Your task to perform on an android device: turn on bluetooth scan Image 0: 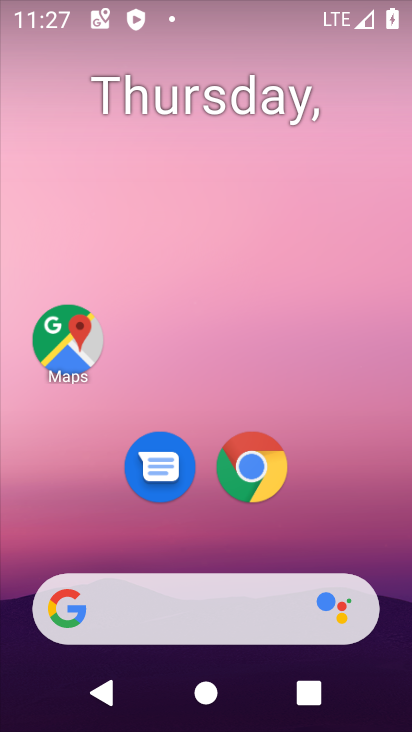
Step 0: drag from (181, 567) to (305, 29)
Your task to perform on an android device: turn on bluetooth scan Image 1: 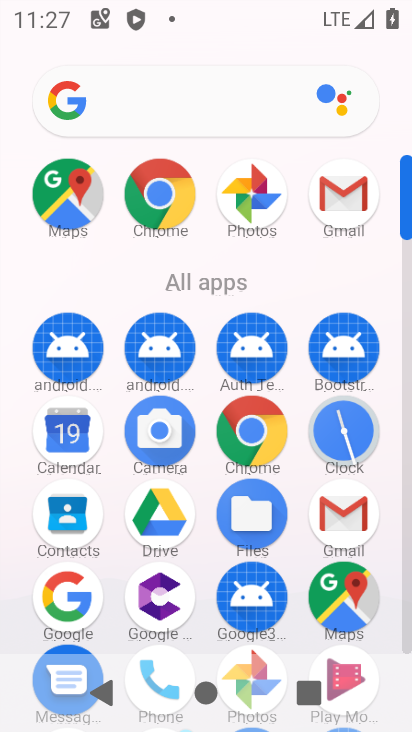
Step 1: drag from (214, 619) to (334, 58)
Your task to perform on an android device: turn on bluetooth scan Image 2: 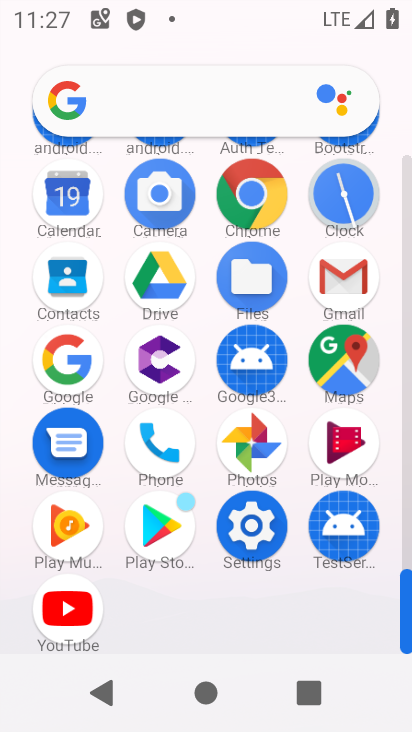
Step 2: click (243, 547)
Your task to perform on an android device: turn on bluetooth scan Image 3: 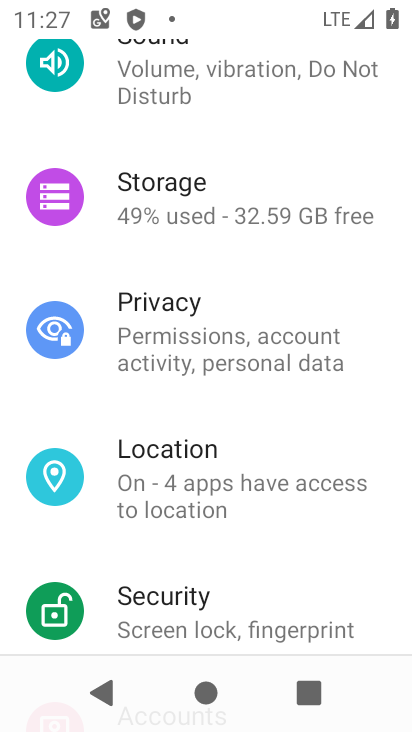
Step 3: drag from (209, 141) to (195, 574)
Your task to perform on an android device: turn on bluetooth scan Image 4: 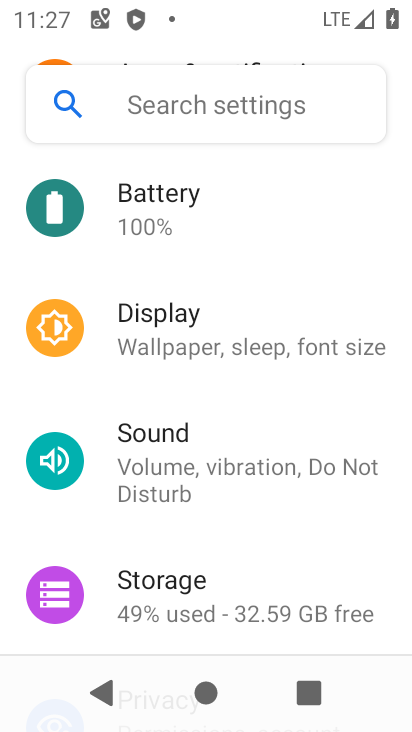
Step 4: drag from (213, 260) to (159, 717)
Your task to perform on an android device: turn on bluetooth scan Image 5: 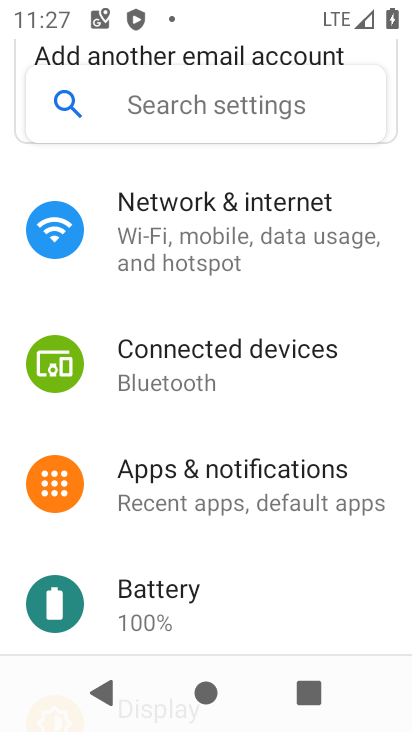
Step 5: click (182, 368)
Your task to perform on an android device: turn on bluetooth scan Image 6: 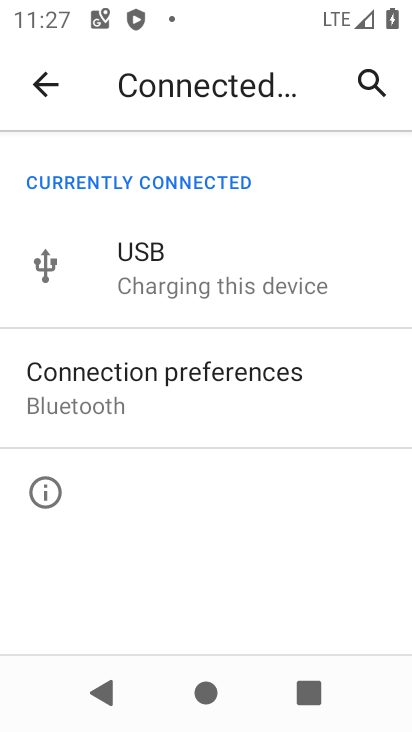
Step 6: click (179, 390)
Your task to perform on an android device: turn on bluetooth scan Image 7: 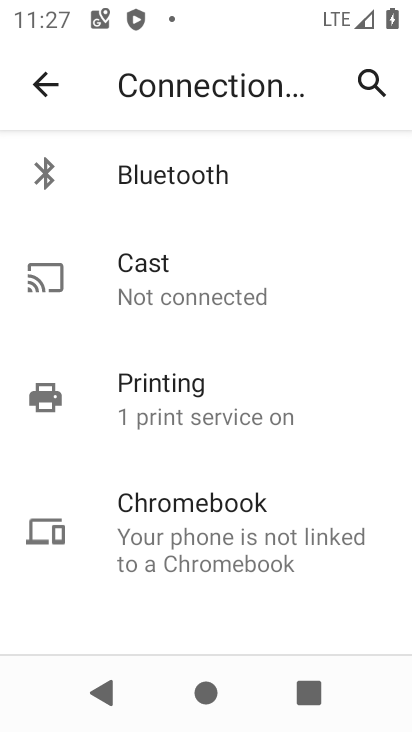
Step 7: click (177, 185)
Your task to perform on an android device: turn on bluetooth scan Image 8: 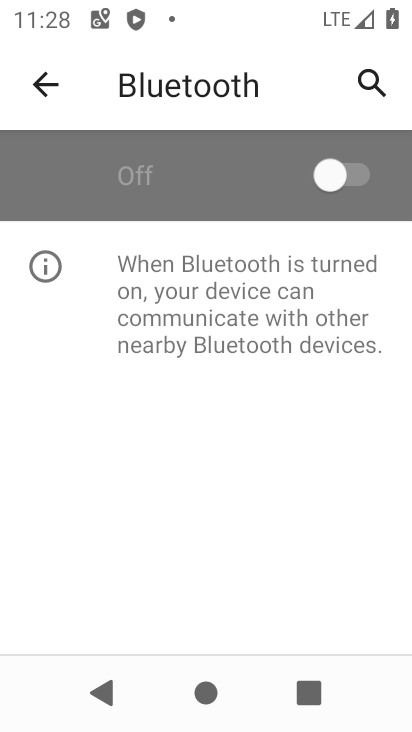
Step 8: click (343, 167)
Your task to perform on an android device: turn on bluetooth scan Image 9: 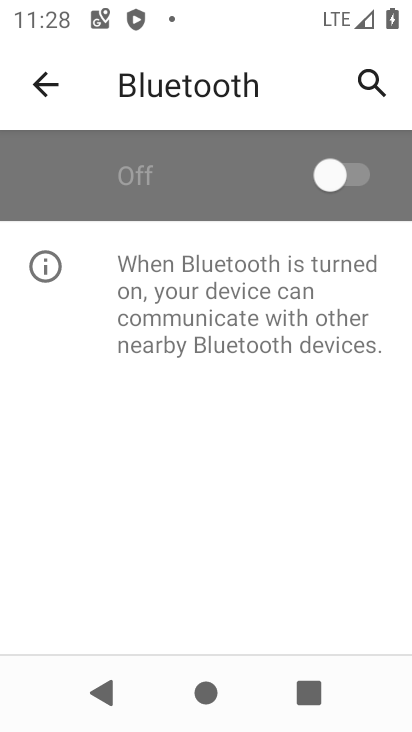
Step 9: task complete